Your task to perform on an android device: What's on my calendar today? Image 0: 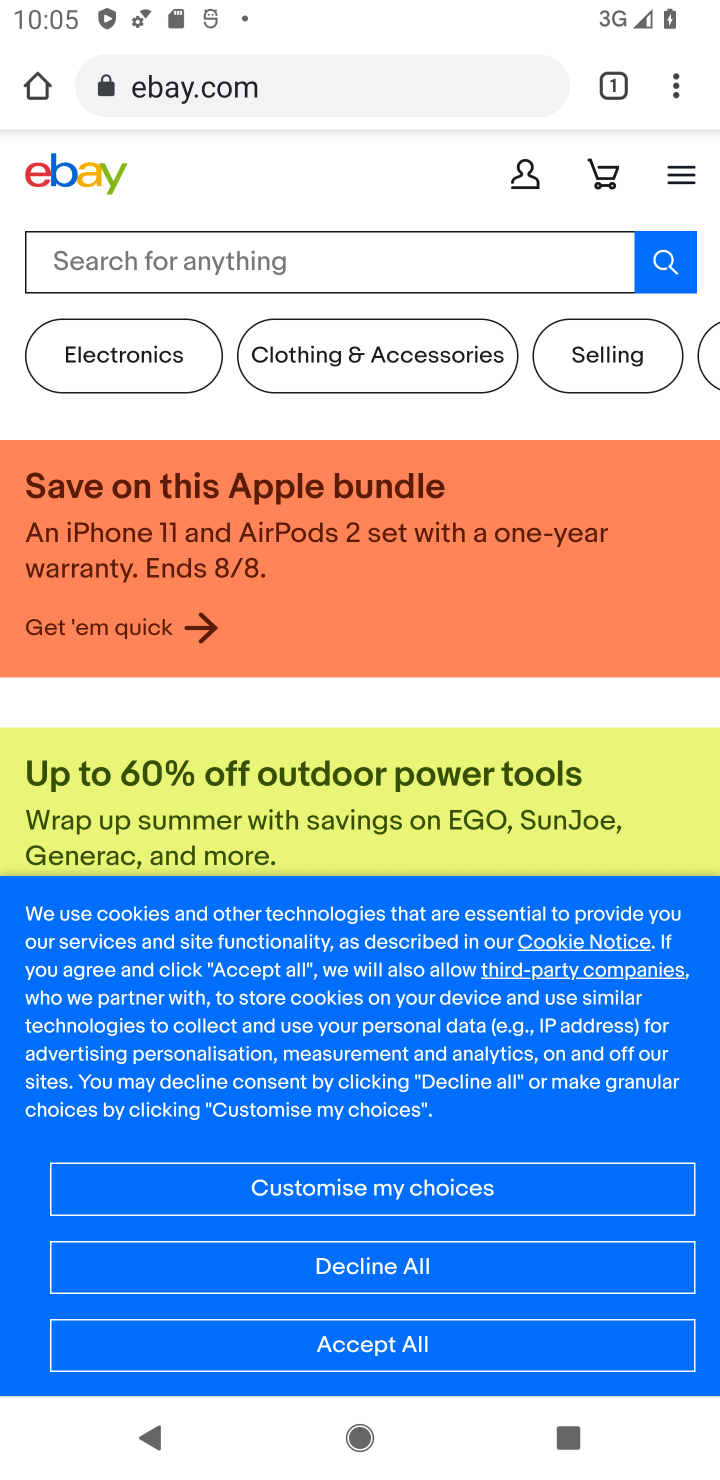
Step 0: press home button
Your task to perform on an android device: What's on my calendar today? Image 1: 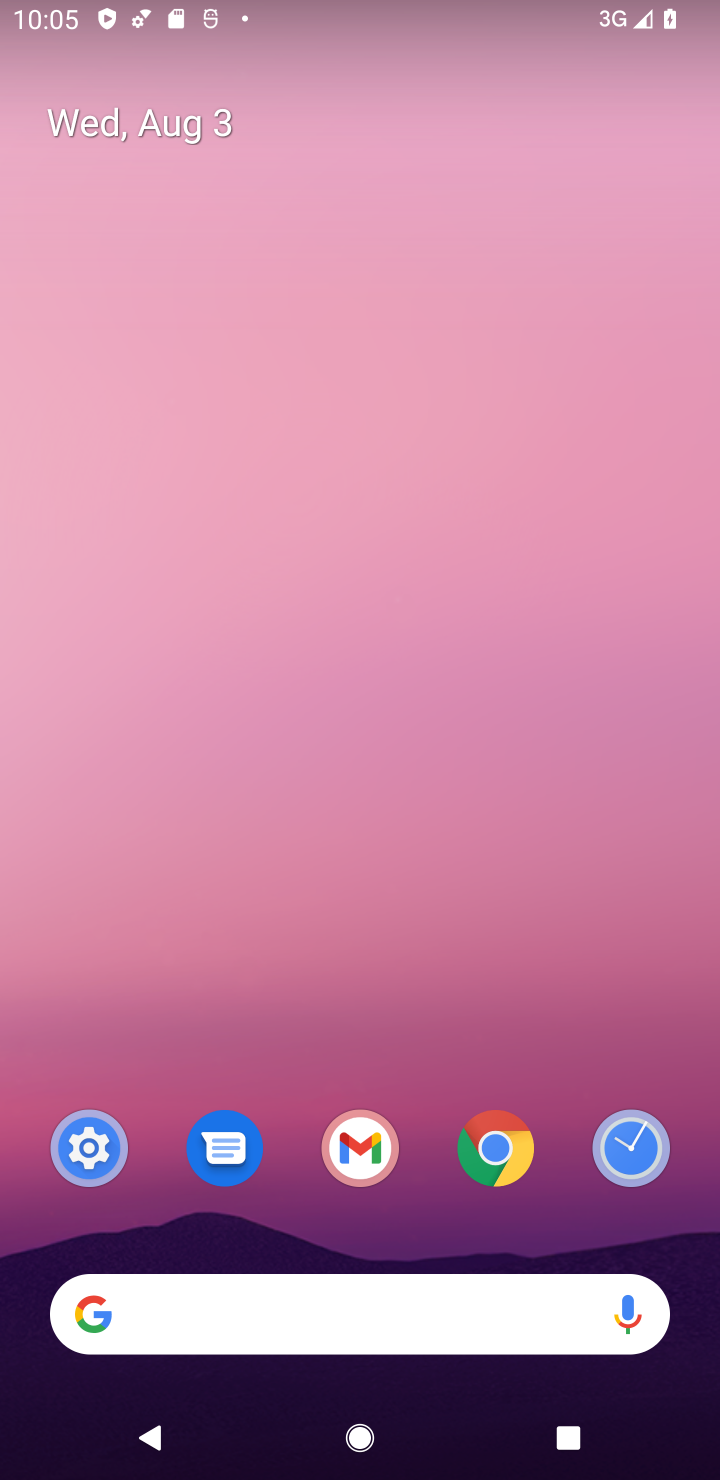
Step 1: drag from (526, 891) to (509, 261)
Your task to perform on an android device: What's on my calendar today? Image 2: 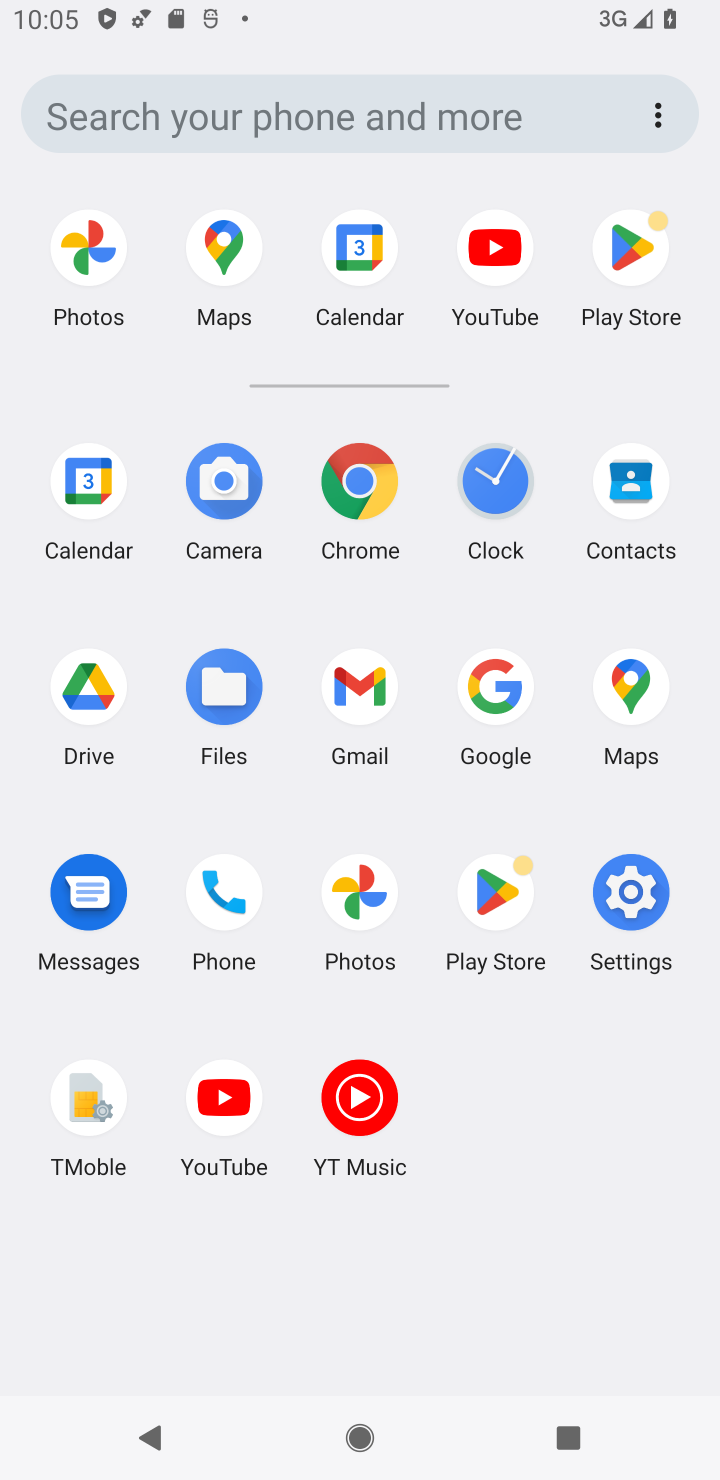
Step 2: click (78, 483)
Your task to perform on an android device: What's on my calendar today? Image 3: 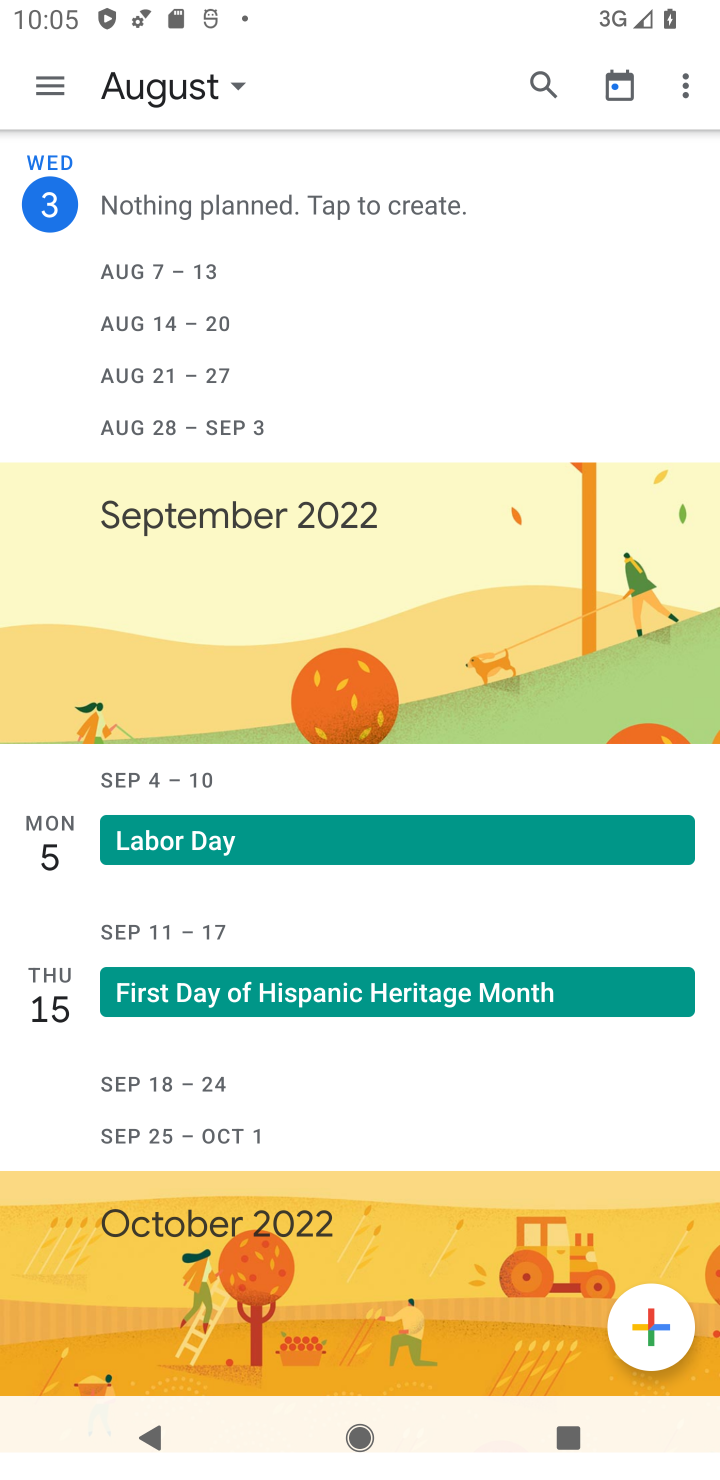
Step 3: task complete